Your task to perform on an android device: turn off data saver in the chrome app Image 0: 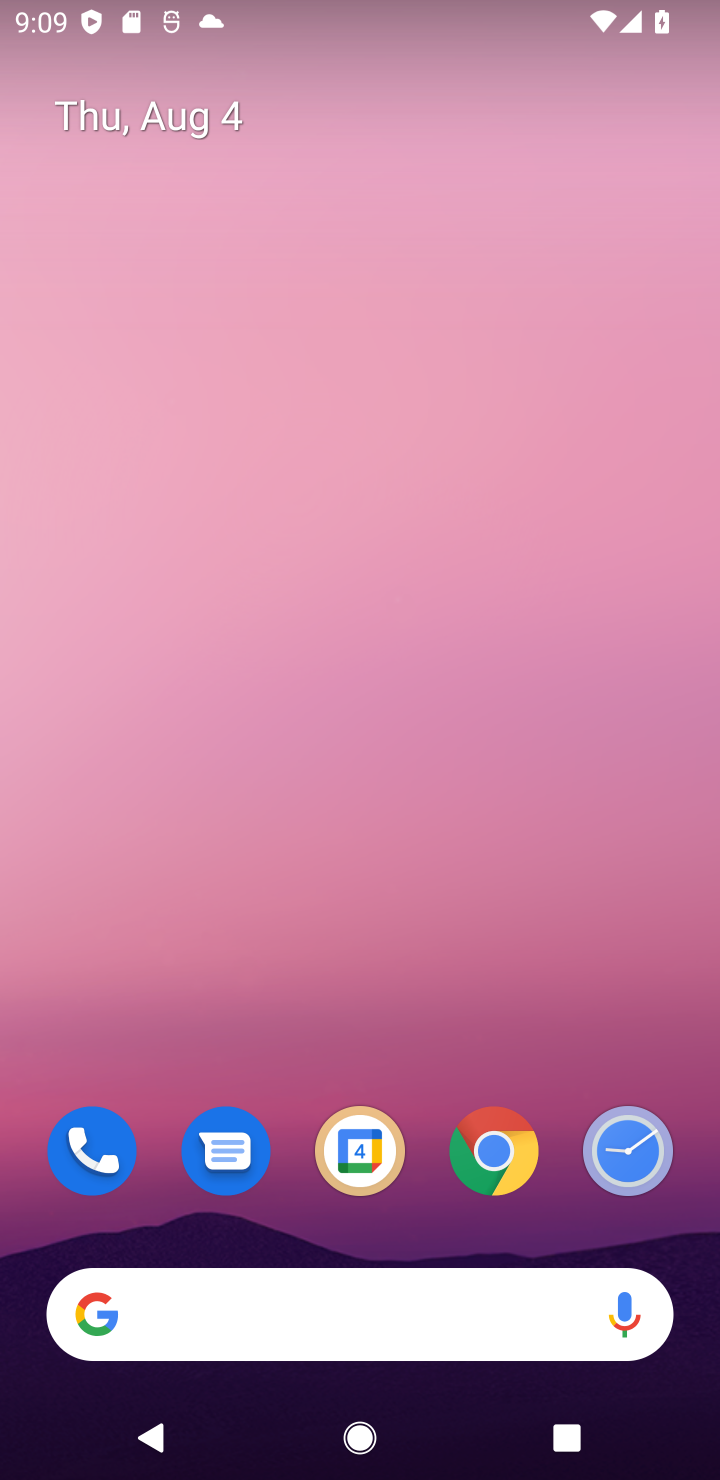
Step 0: click (519, 1169)
Your task to perform on an android device: turn off data saver in the chrome app Image 1: 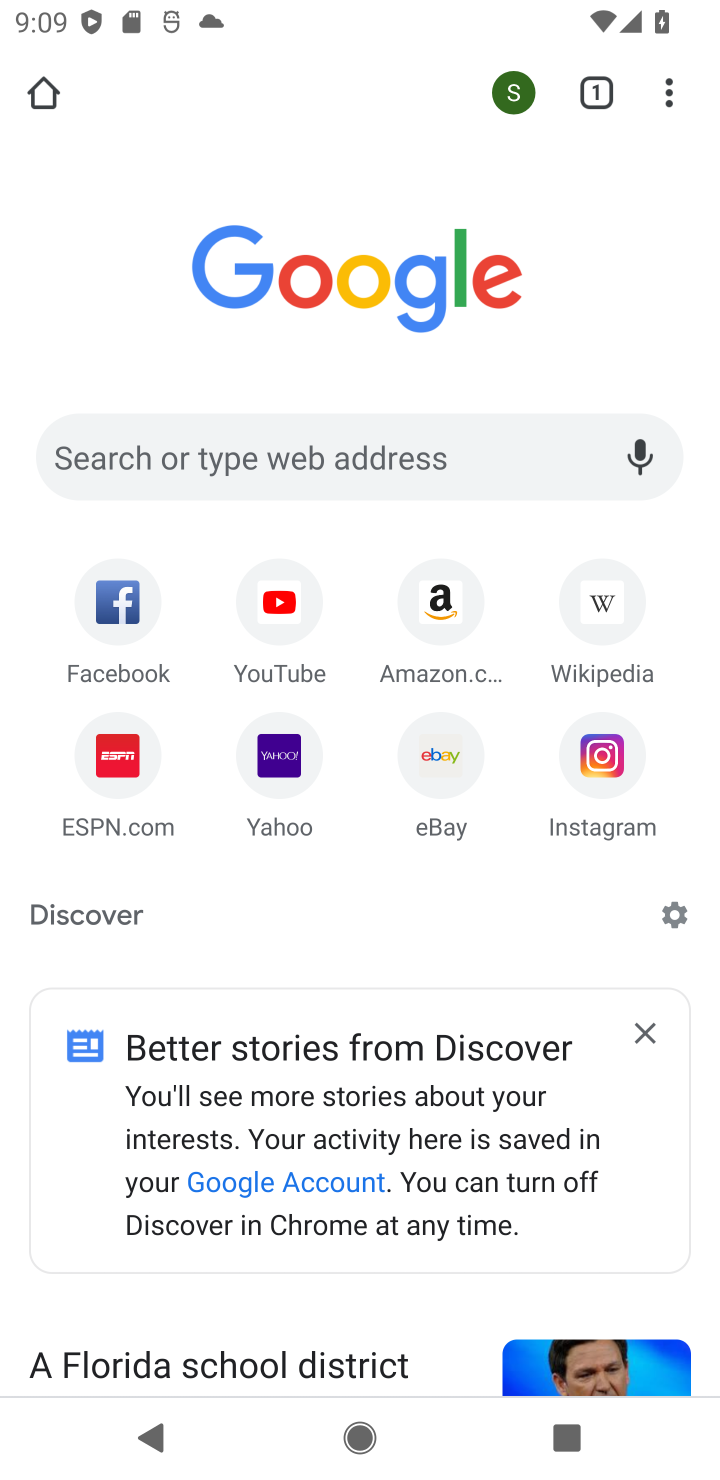
Step 1: click (668, 79)
Your task to perform on an android device: turn off data saver in the chrome app Image 2: 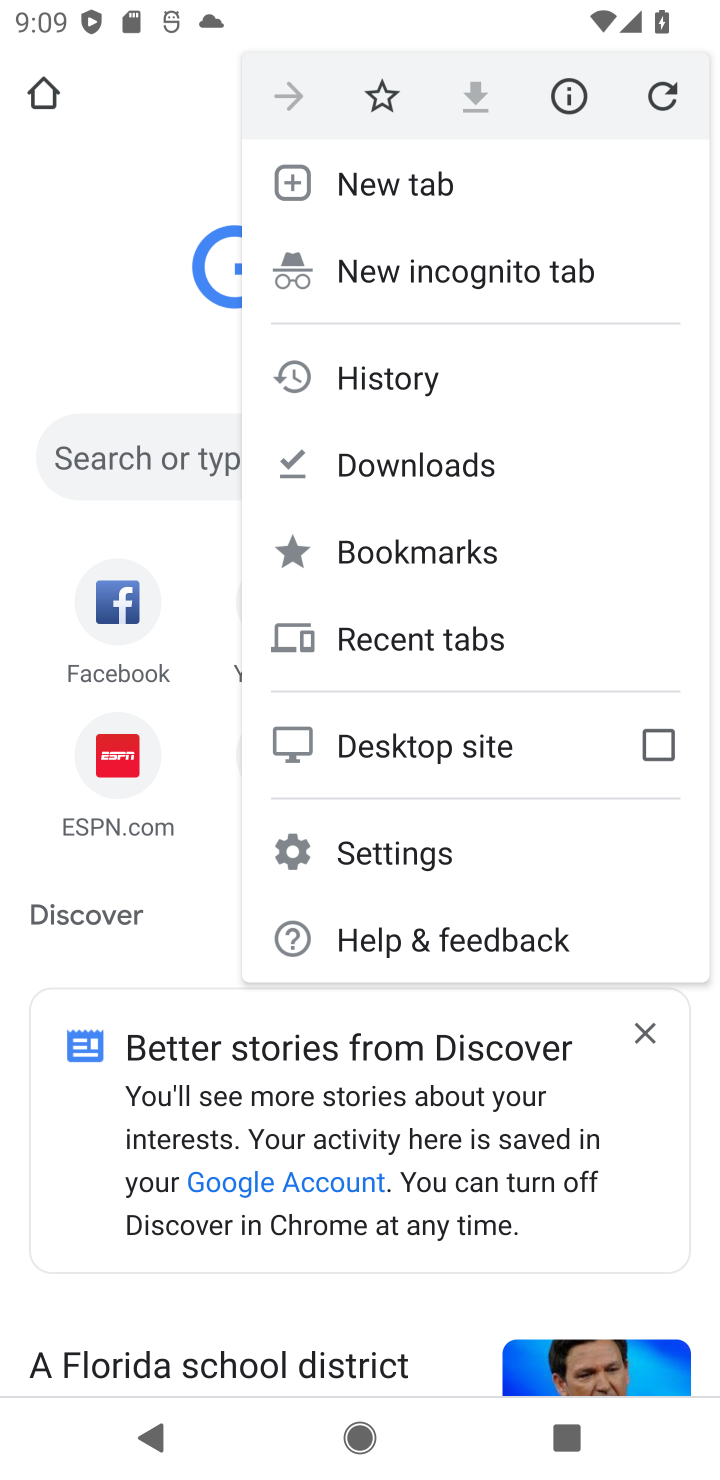
Step 2: click (470, 858)
Your task to perform on an android device: turn off data saver in the chrome app Image 3: 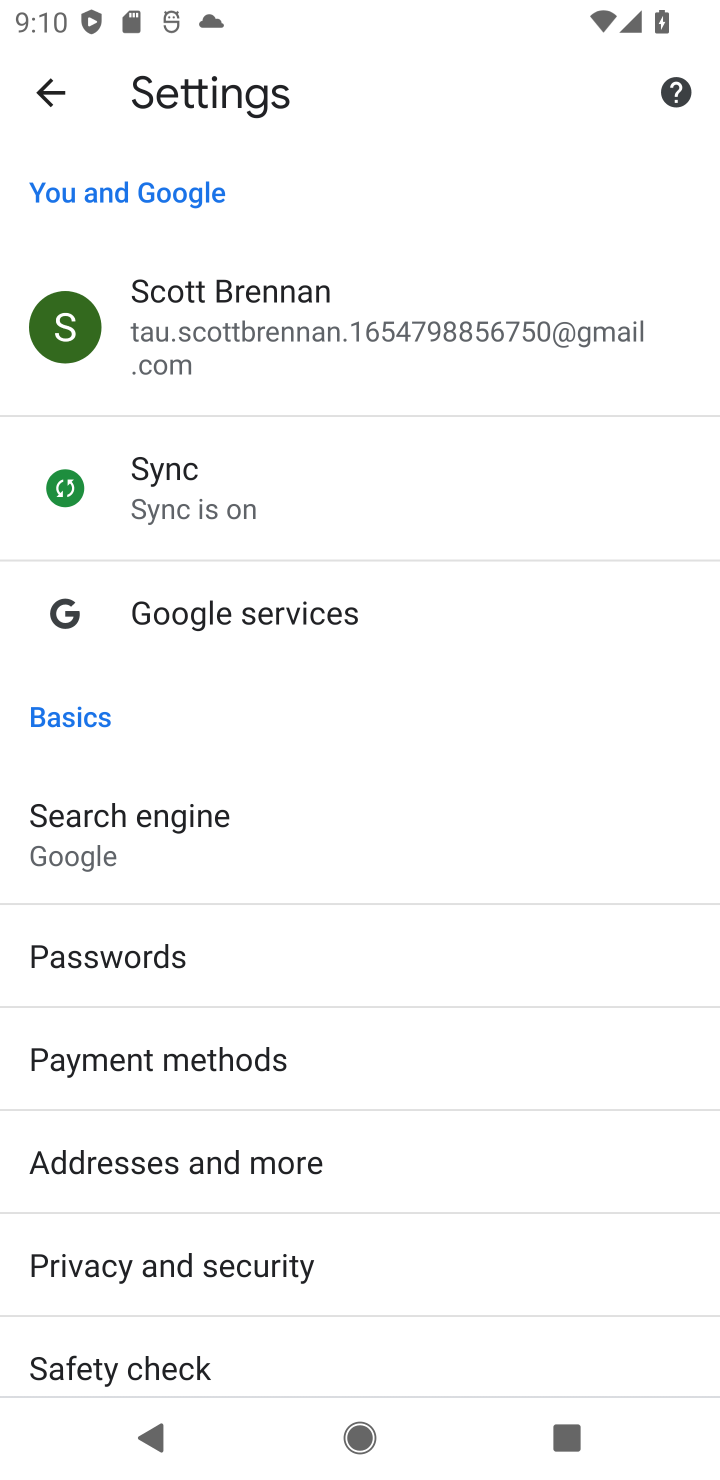
Step 3: task complete